Your task to perform on an android device: turn off location Image 0: 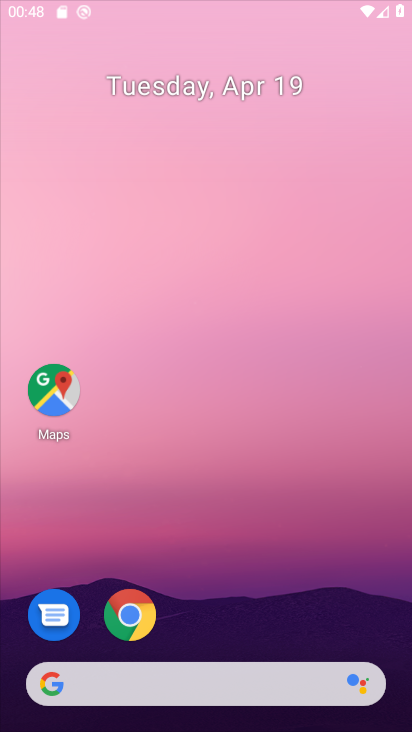
Step 0: press home button
Your task to perform on an android device: turn off location Image 1: 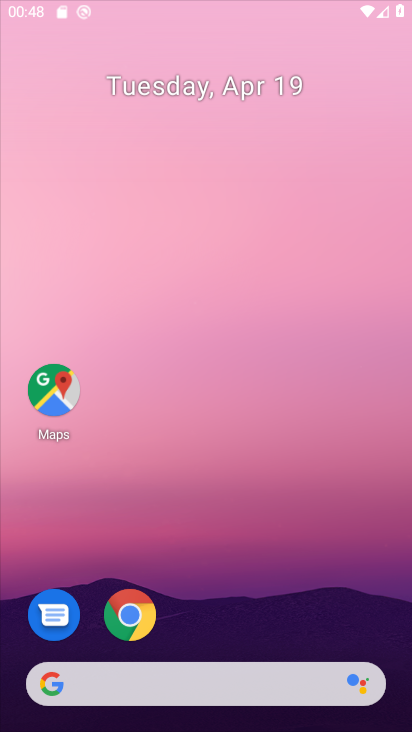
Step 1: drag from (296, 74) to (199, 229)
Your task to perform on an android device: turn off location Image 2: 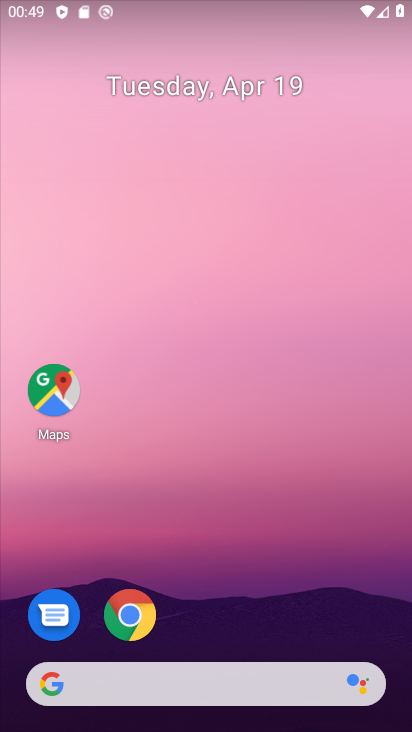
Step 2: drag from (209, 592) to (212, 166)
Your task to perform on an android device: turn off location Image 3: 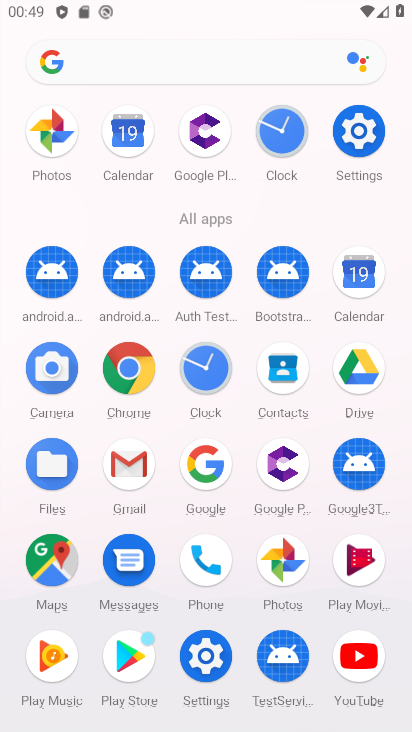
Step 3: click (208, 679)
Your task to perform on an android device: turn off location Image 4: 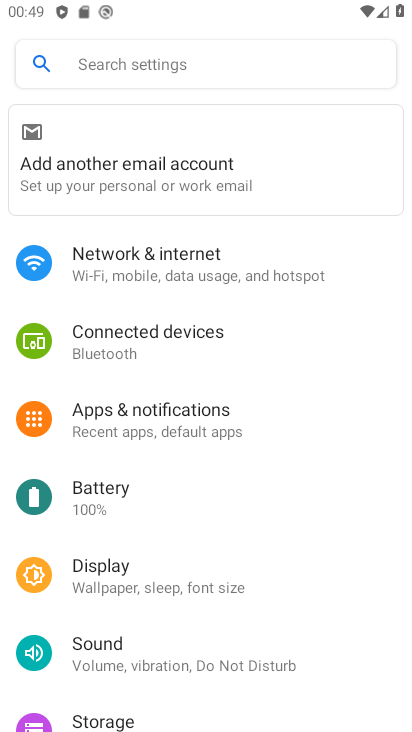
Step 4: drag from (190, 651) to (211, 233)
Your task to perform on an android device: turn off location Image 5: 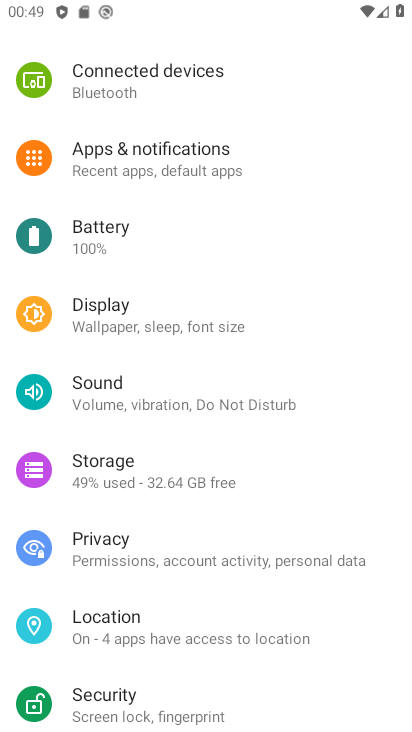
Step 5: click (144, 632)
Your task to perform on an android device: turn off location Image 6: 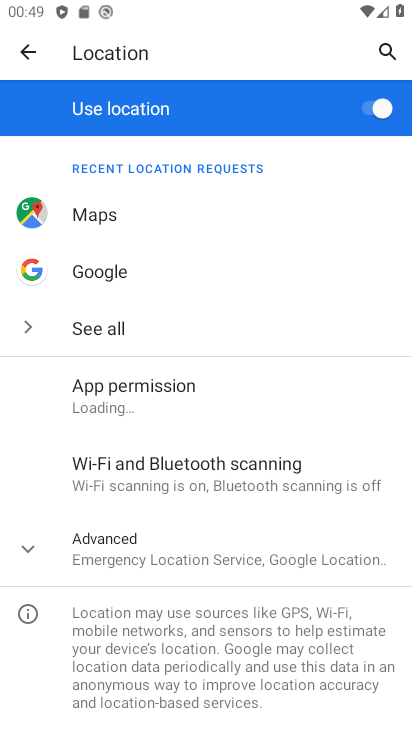
Step 6: click (375, 102)
Your task to perform on an android device: turn off location Image 7: 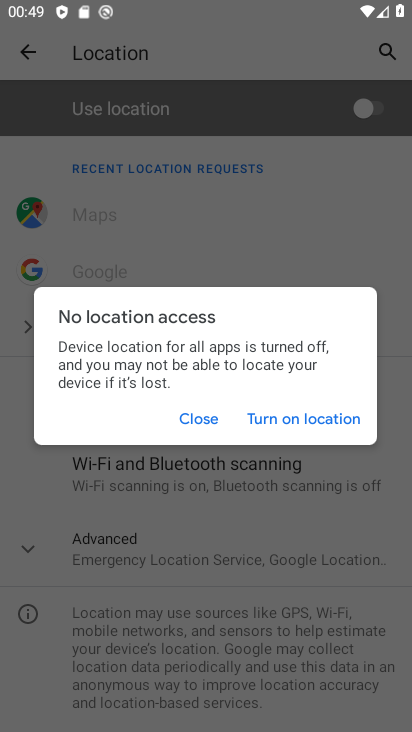
Step 7: task complete